Your task to perform on an android device: turn off data saver in the chrome app Image 0: 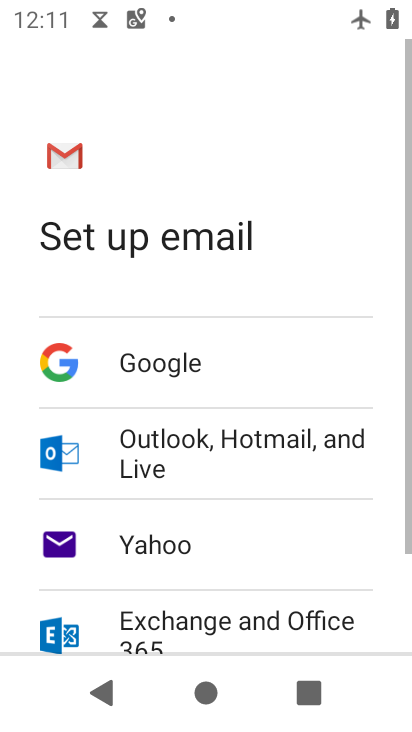
Step 0: press home button
Your task to perform on an android device: turn off data saver in the chrome app Image 1: 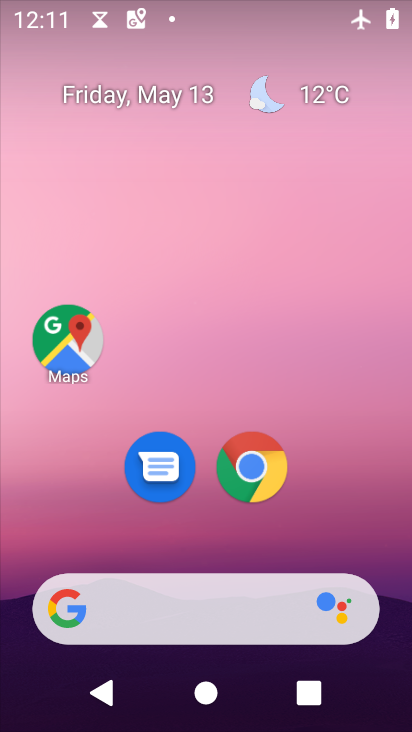
Step 1: click (255, 461)
Your task to perform on an android device: turn off data saver in the chrome app Image 2: 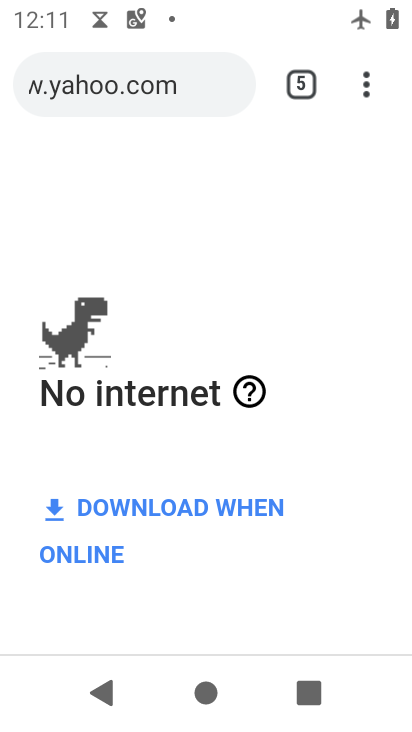
Step 2: click (373, 79)
Your task to perform on an android device: turn off data saver in the chrome app Image 3: 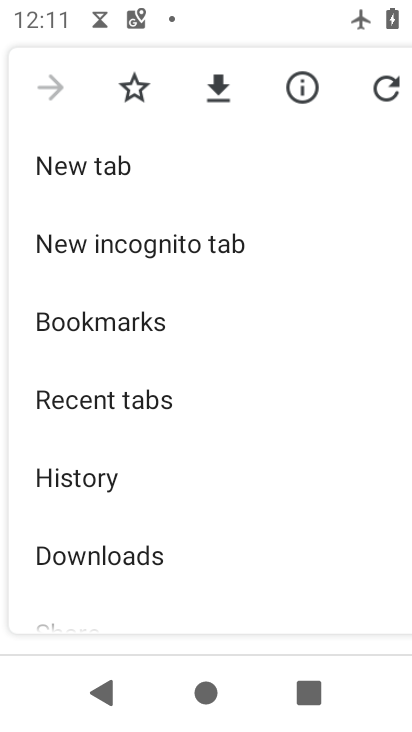
Step 3: drag from (233, 531) to (208, 123)
Your task to perform on an android device: turn off data saver in the chrome app Image 4: 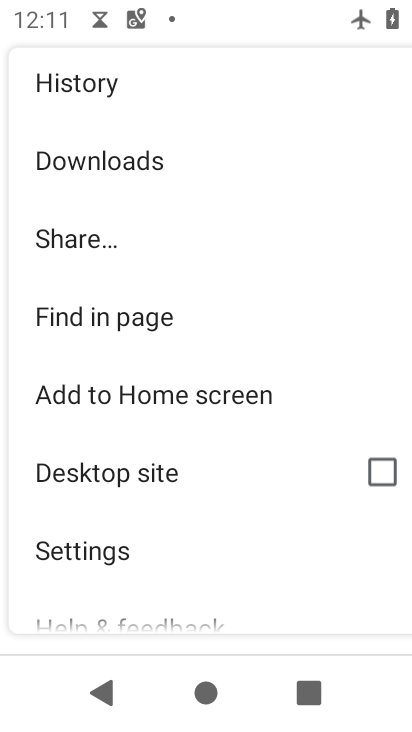
Step 4: drag from (190, 520) to (187, 298)
Your task to perform on an android device: turn off data saver in the chrome app Image 5: 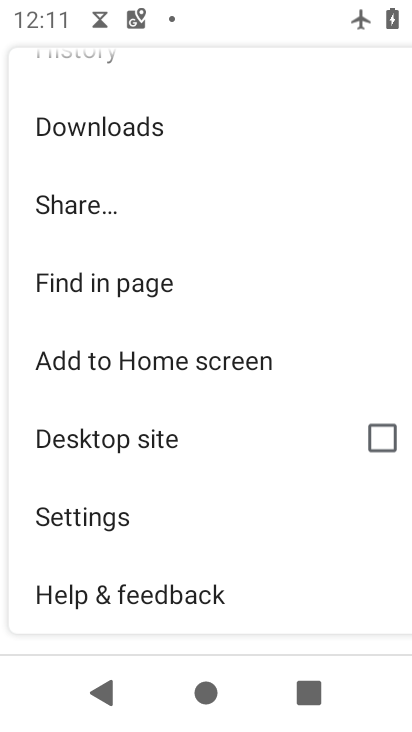
Step 5: click (129, 496)
Your task to perform on an android device: turn off data saver in the chrome app Image 6: 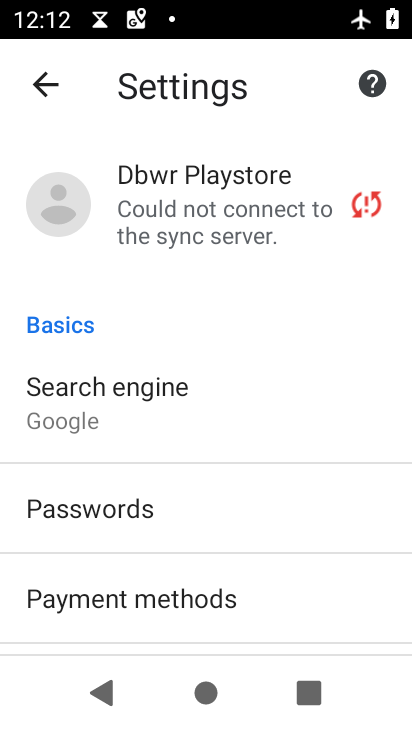
Step 6: drag from (254, 567) to (300, 116)
Your task to perform on an android device: turn off data saver in the chrome app Image 7: 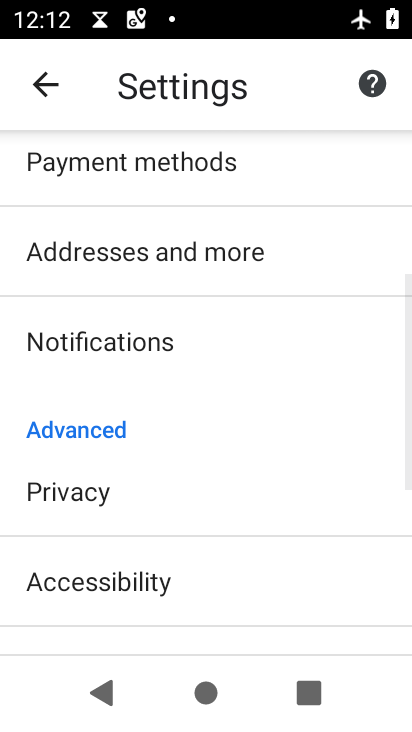
Step 7: drag from (208, 573) to (231, 227)
Your task to perform on an android device: turn off data saver in the chrome app Image 8: 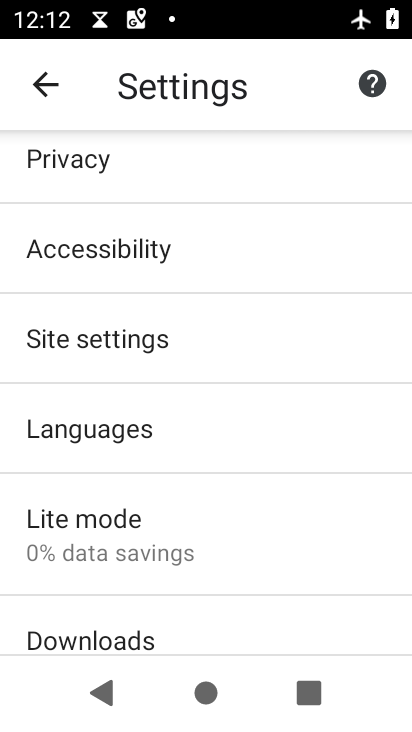
Step 8: click (185, 510)
Your task to perform on an android device: turn off data saver in the chrome app Image 9: 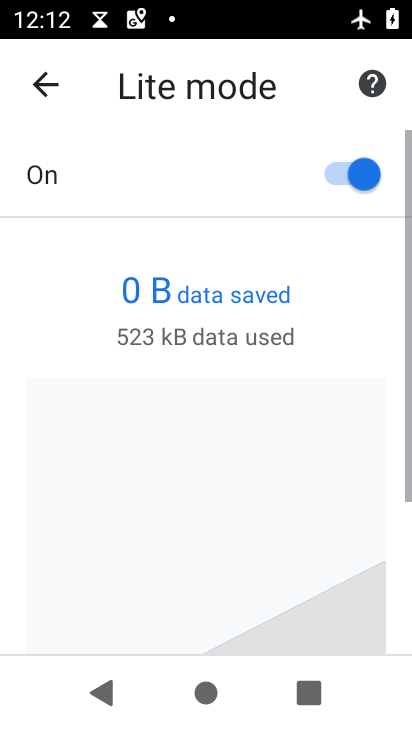
Step 9: click (351, 157)
Your task to perform on an android device: turn off data saver in the chrome app Image 10: 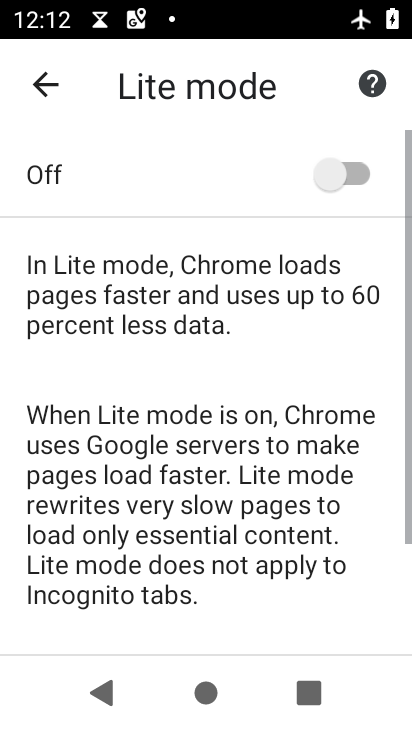
Step 10: task complete